Your task to perform on an android device: Search for vegetarian restaurants on Maps Image 0: 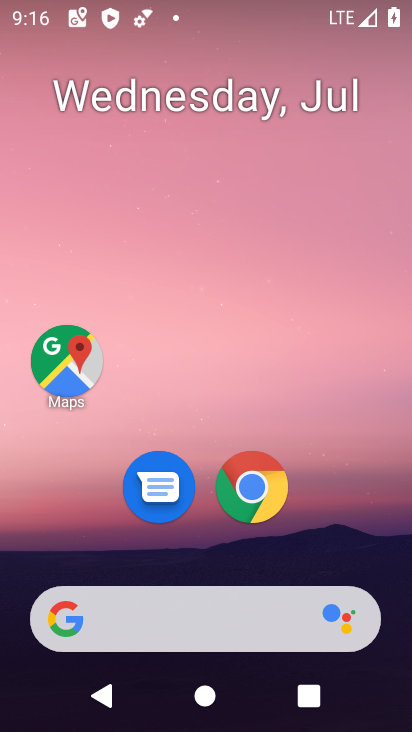
Step 0: click (64, 367)
Your task to perform on an android device: Search for vegetarian restaurants on Maps Image 1: 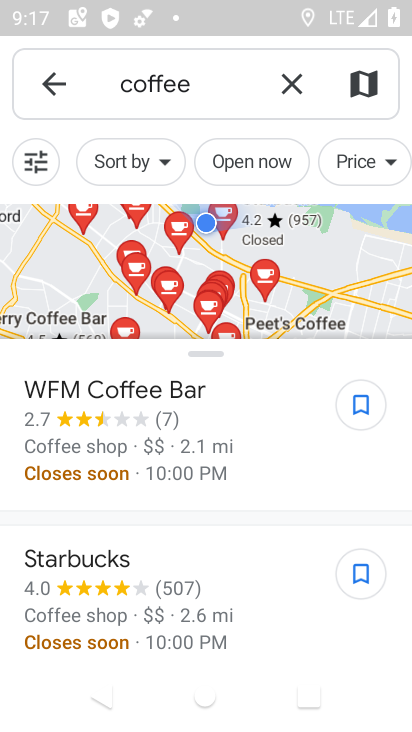
Step 1: click (46, 92)
Your task to perform on an android device: Search for vegetarian restaurants on Maps Image 2: 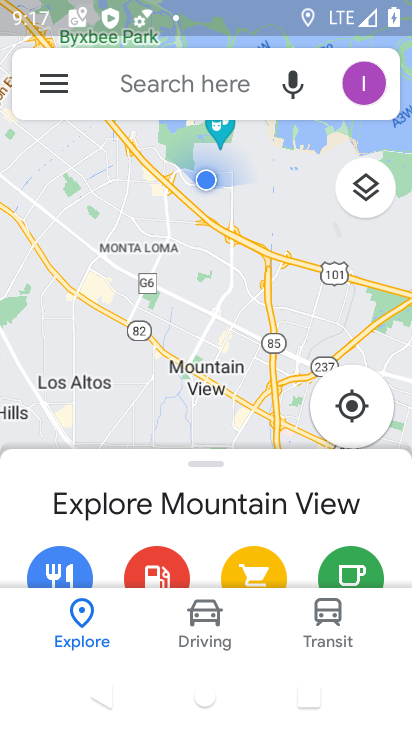
Step 2: click (130, 91)
Your task to perform on an android device: Search for vegetarian restaurants on Maps Image 3: 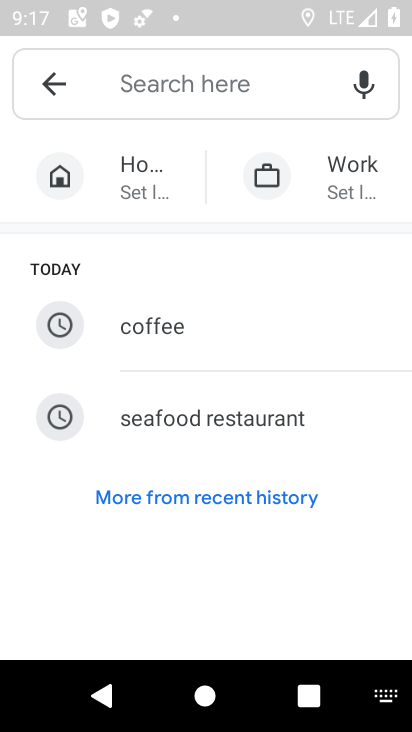
Step 3: type "vegetarian restaurants"
Your task to perform on an android device: Search for vegetarian restaurants on Maps Image 4: 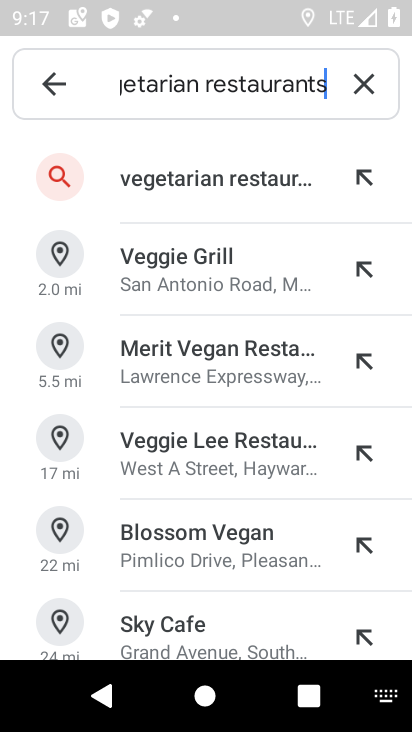
Step 4: click (143, 170)
Your task to perform on an android device: Search for vegetarian restaurants on Maps Image 5: 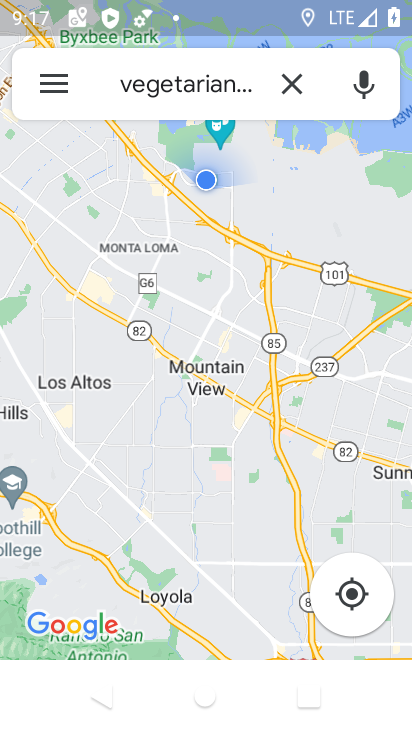
Step 5: task complete